Your task to perform on an android device: What's the news in Laos? Image 0: 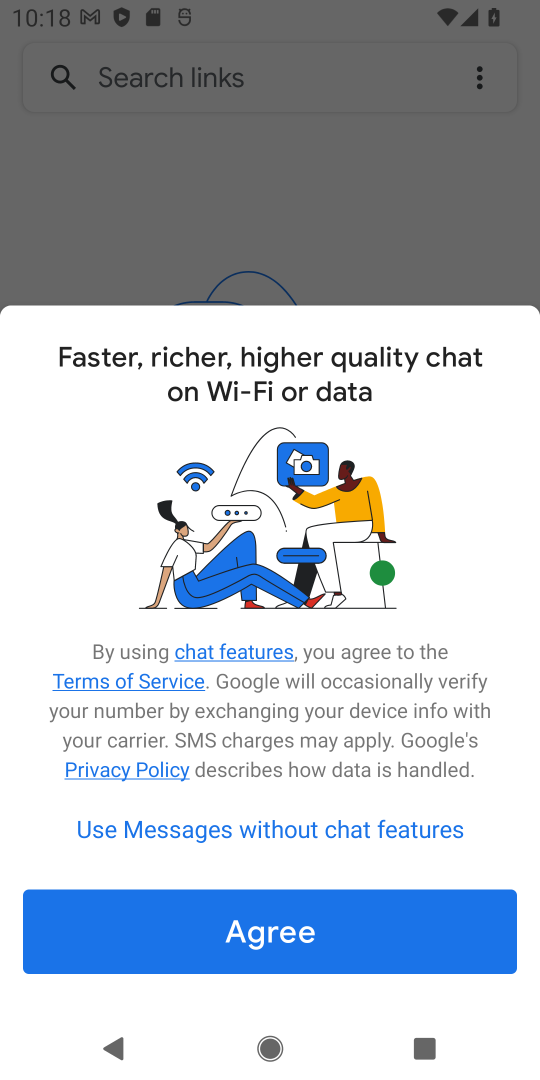
Step 0: press home button
Your task to perform on an android device: What's the news in Laos? Image 1: 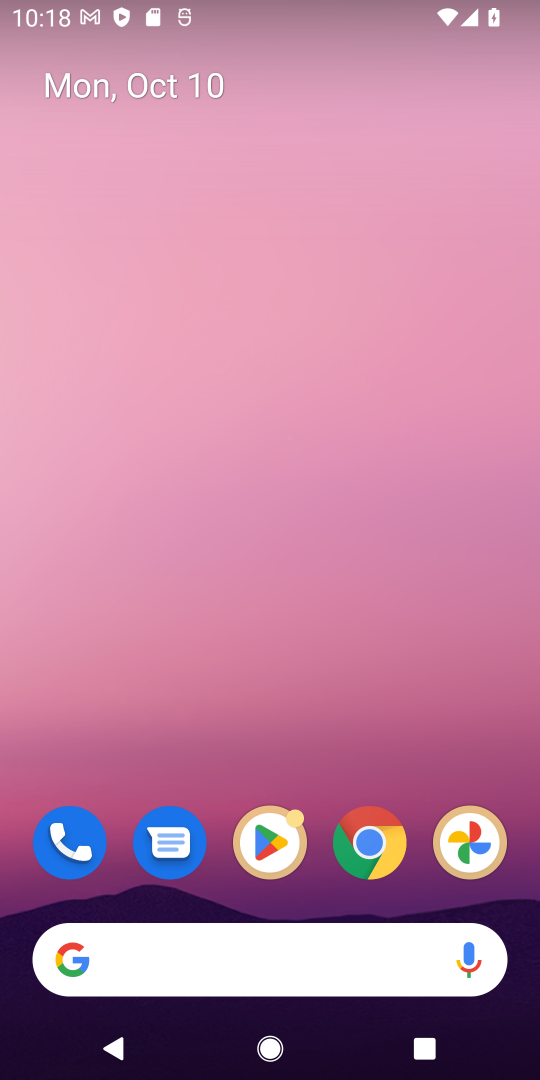
Step 1: click (271, 975)
Your task to perform on an android device: What's the news in Laos? Image 2: 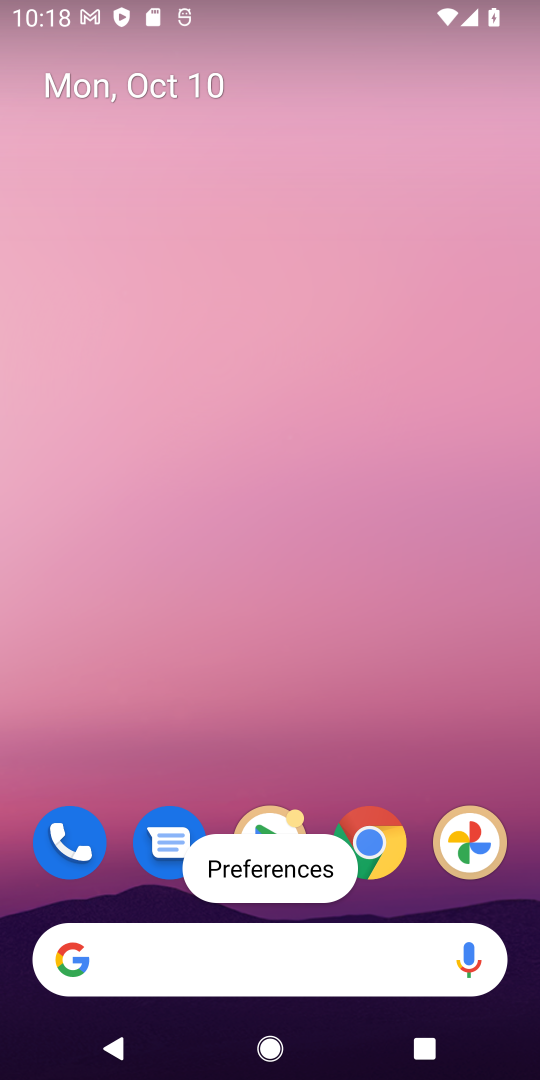
Step 2: click (271, 975)
Your task to perform on an android device: What's the news in Laos? Image 3: 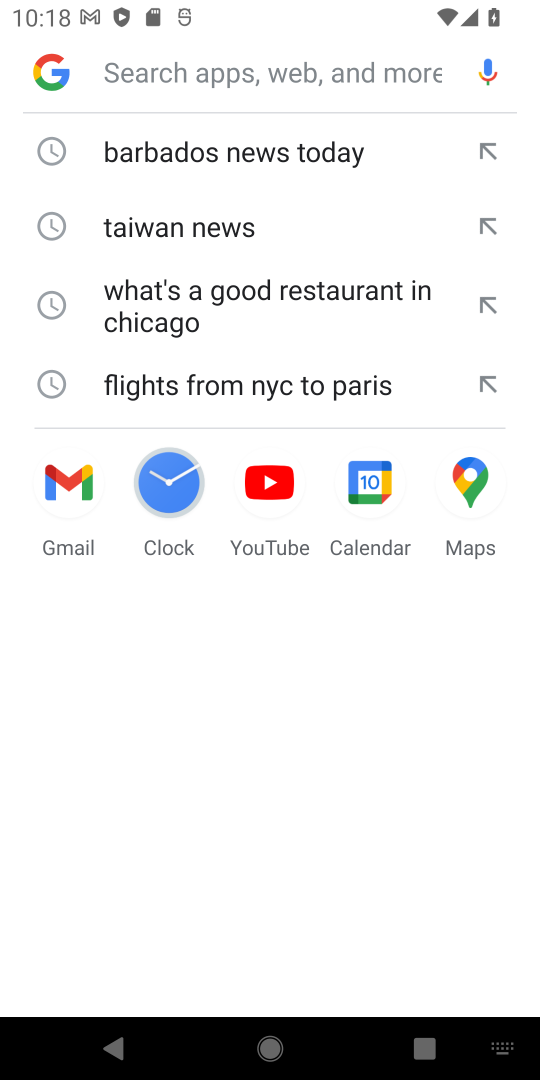
Step 3: type "news in laos"
Your task to perform on an android device: What's the news in Laos? Image 4: 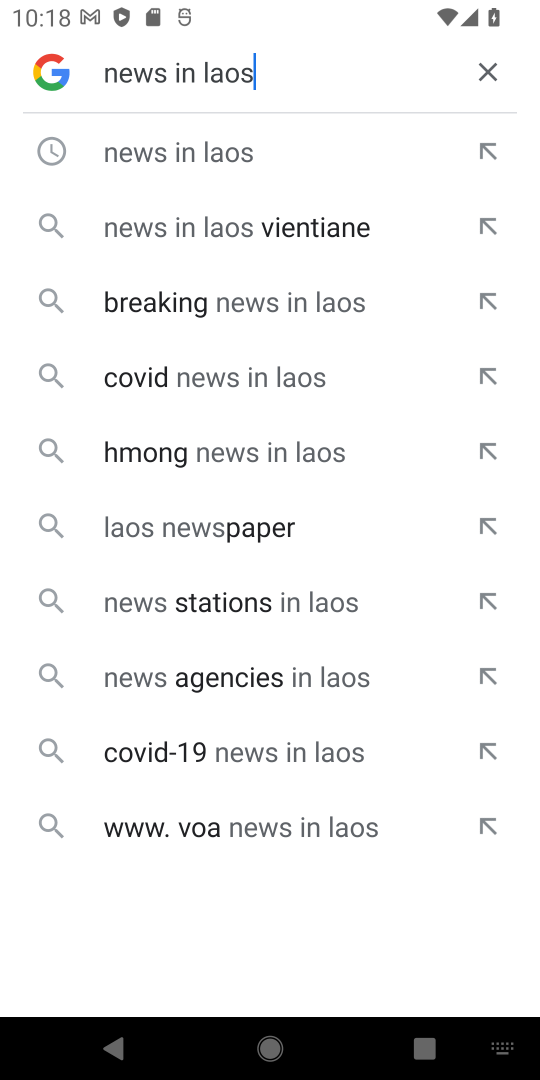
Step 4: click (123, 146)
Your task to perform on an android device: What's the news in Laos? Image 5: 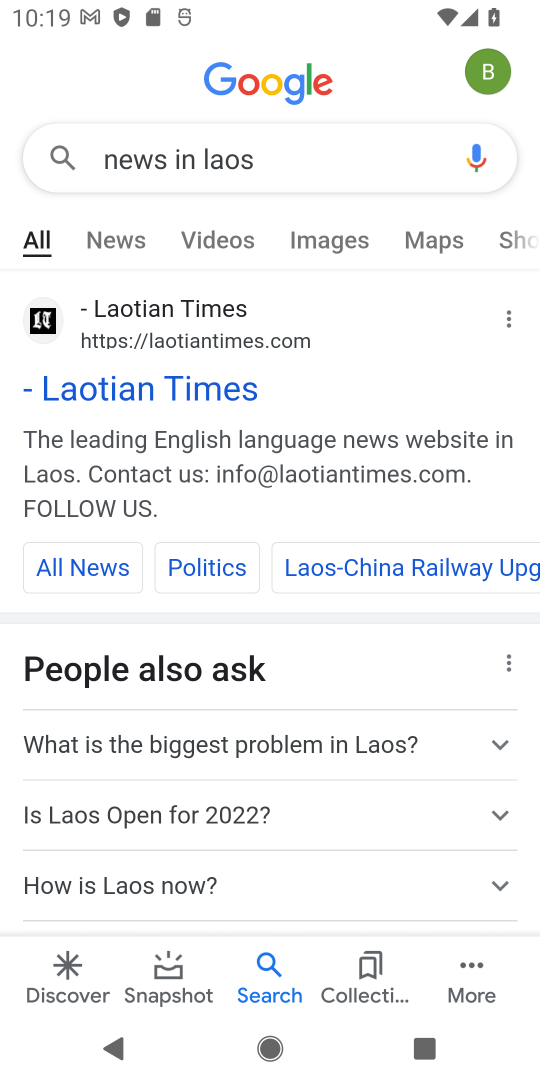
Step 5: click (121, 237)
Your task to perform on an android device: What's the news in Laos? Image 6: 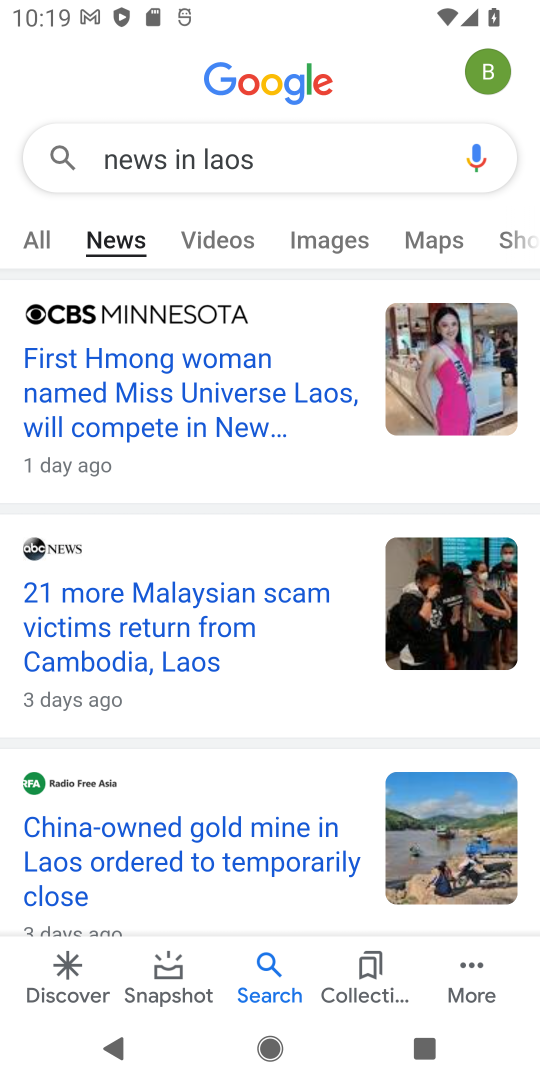
Step 6: click (166, 427)
Your task to perform on an android device: What's the news in Laos? Image 7: 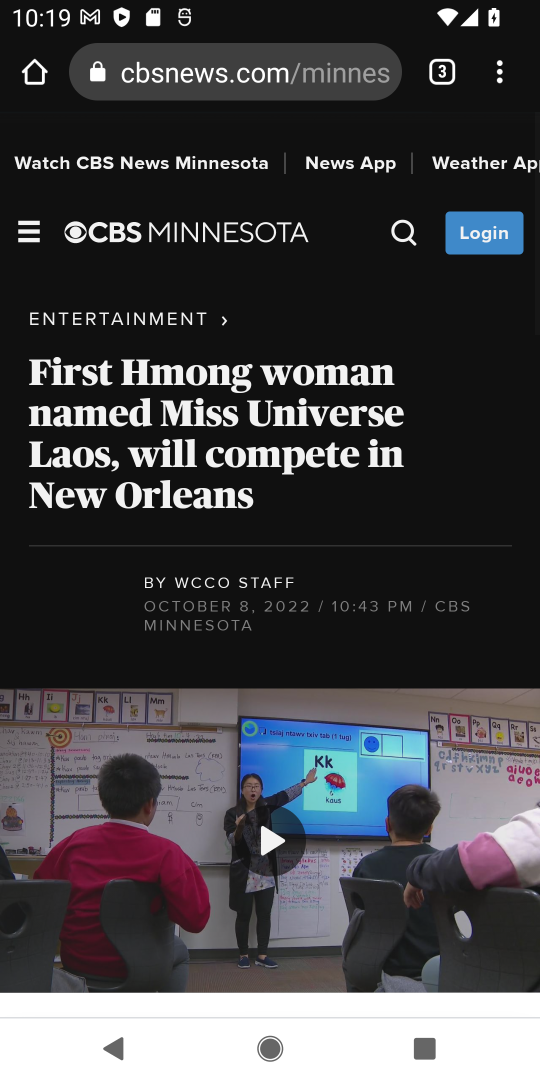
Step 7: task complete